Your task to perform on an android device: delete browsing data in the chrome app Image 0: 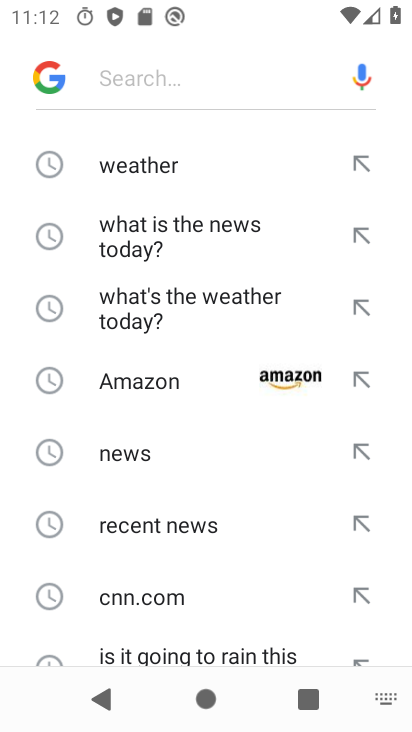
Step 0: press home button
Your task to perform on an android device: delete browsing data in the chrome app Image 1: 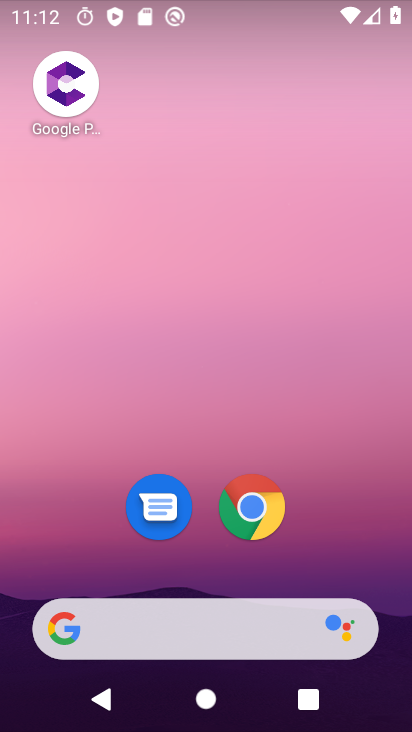
Step 1: drag from (393, 653) to (390, 522)
Your task to perform on an android device: delete browsing data in the chrome app Image 2: 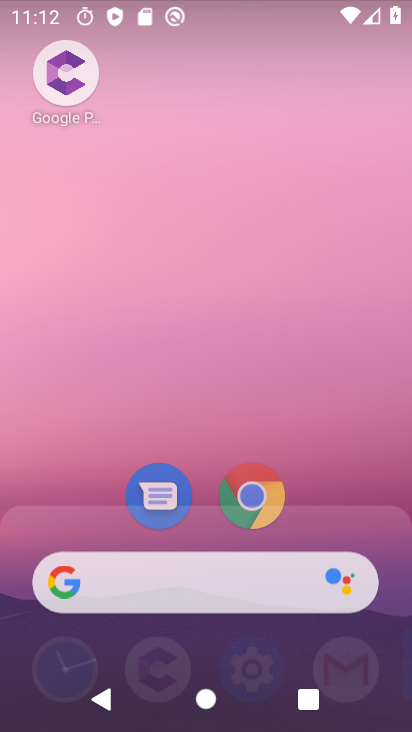
Step 2: drag from (358, 227) to (292, 64)
Your task to perform on an android device: delete browsing data in the chrome app Image 3: 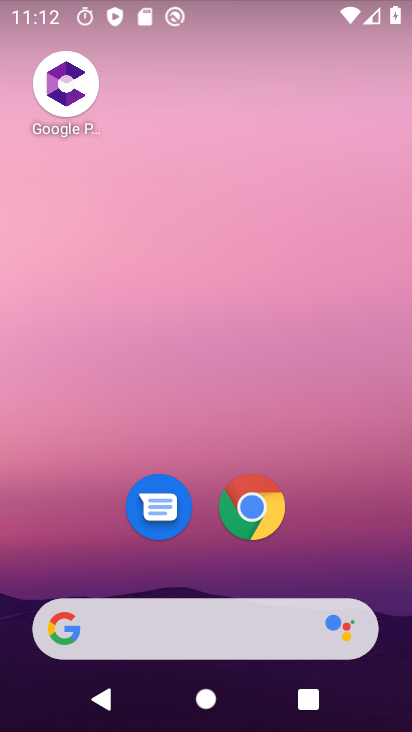
Step 3: drag from (392, 648) to (273, 42)
Your task to perform on an android device: delete browsing data in the chrome app Image 4: 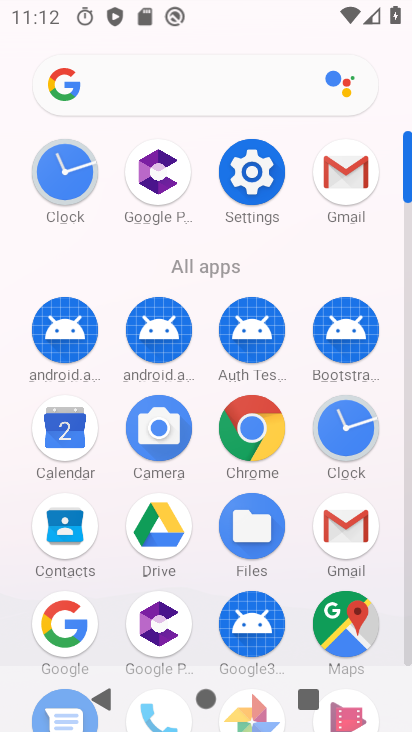
Step 4: click (264, 436)
Your task to perform on an android device: delete browsing data in the chrome app Image 5: 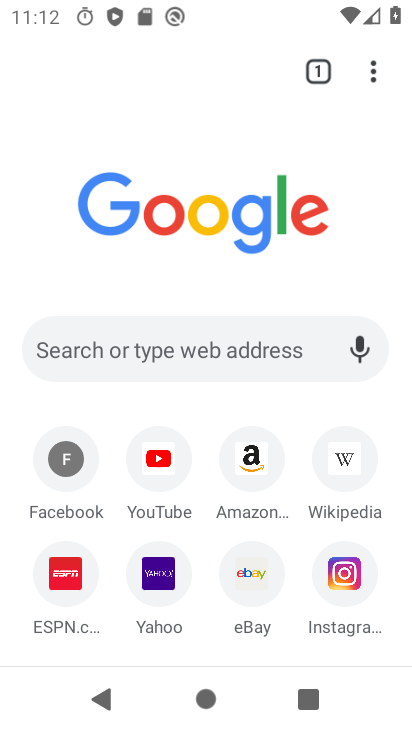
Step 5: click (379, 77)
Your task to perform on an android device: delete browsing data in the chrome app Image 6: 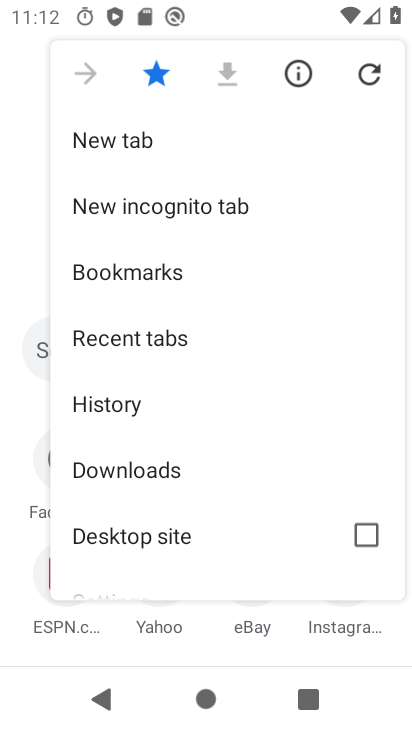
Step 6: click (145, 410)
Your task to perform on an android device: delete browsing data in the chrome app Image 7: 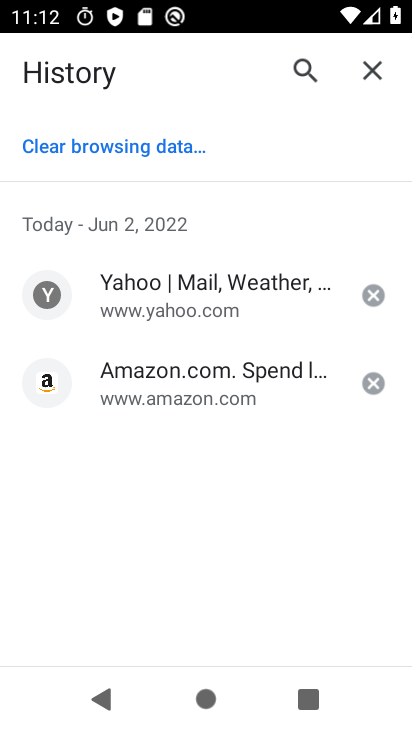
Step 7: click (126, 146)
Your task to perform on an android device: delete browsing data in the chrome app Image 8: 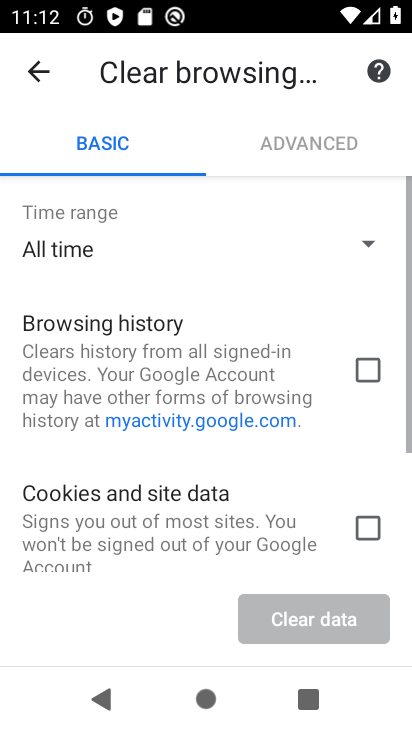
Step 8: click (350, 363)
Your task to perform on an android device: delete browsing data in the chrome app Image 9: 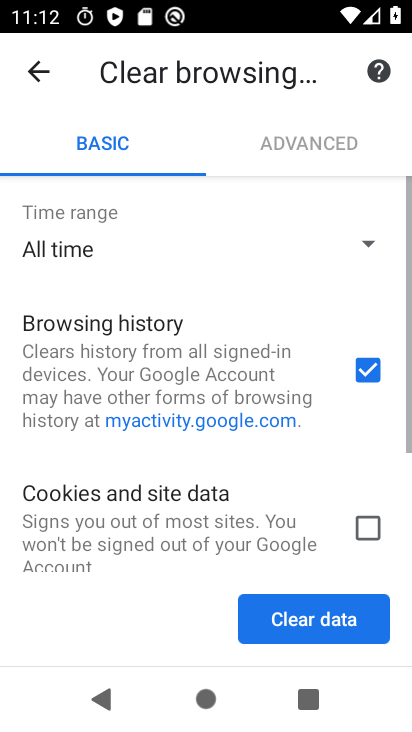
Step 9: click (336, 531)
Your task to perform on an android device: delete browsing data in the chrome app Image 10: 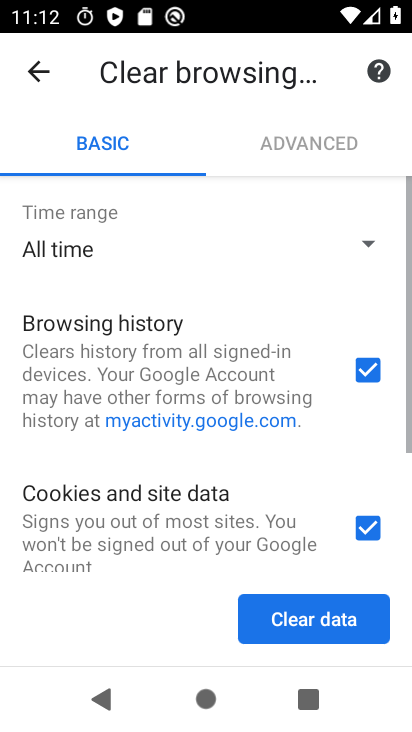
Step 10: click (305, 618)
Your task to perform on an android device: delete browsing data in the chrome app Image 11: 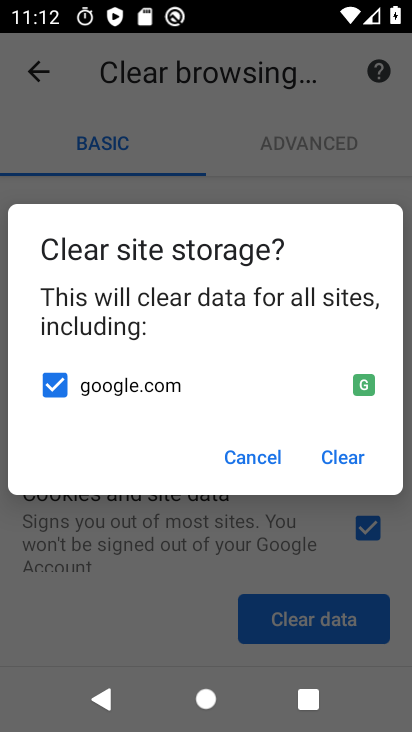
Step 11: click (341, 451)
Your task to perform on an android device: delete browsing data in the chrome app Image 12: 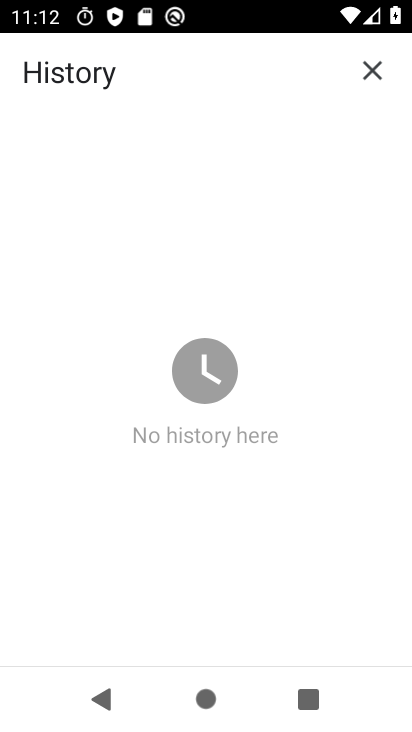
Step 12: task complete